Your task to perform on an android device: change the clock display to show seconds Image 0: 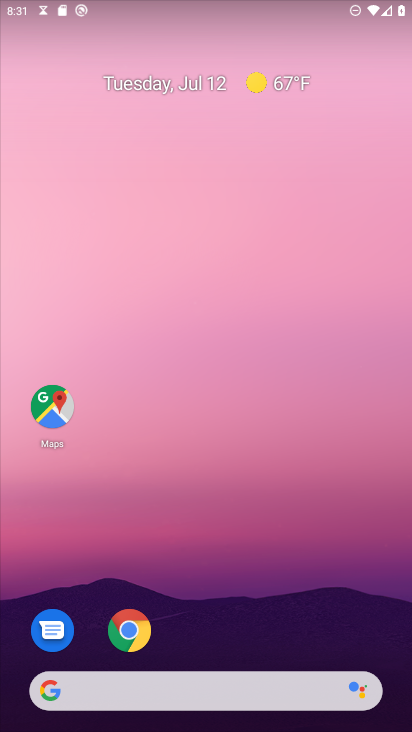
Step 0: drag from (208, 637) to (185, 140)
Your task to perform on an android device: change the clock display to show seconds Image 1: 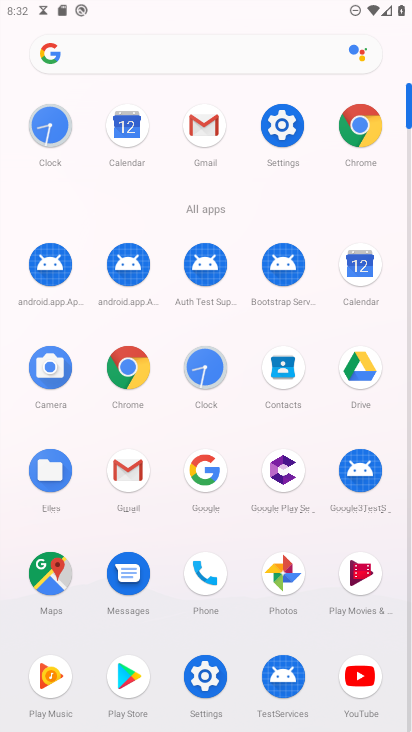
Step 1: click (202, 356)
Your task to perform on an android device: change the clock display to show seconds Image 2: 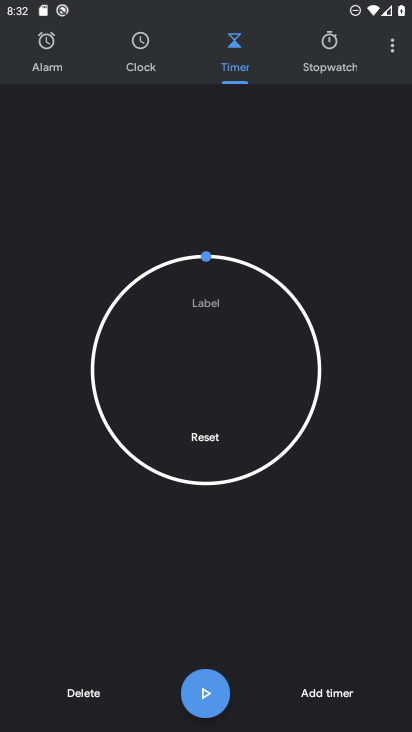
Step 2: click (399, 49)
Your task to perform on an android device: change the clock display to show seconds Image 3: 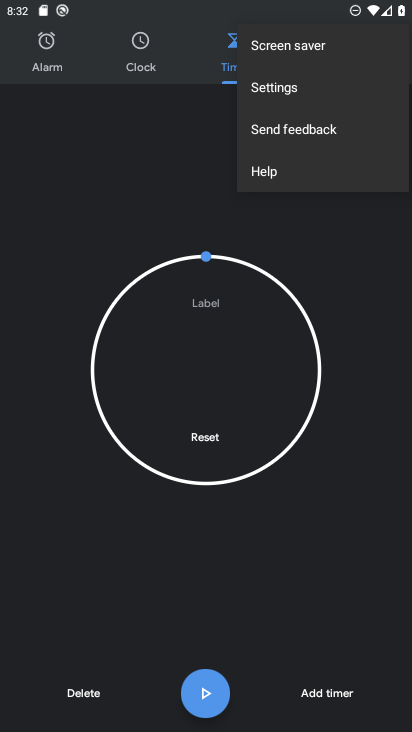
Step 3: click (329, 78)
Your task to perform on an android device: change the clock display to show seconds Image 4: 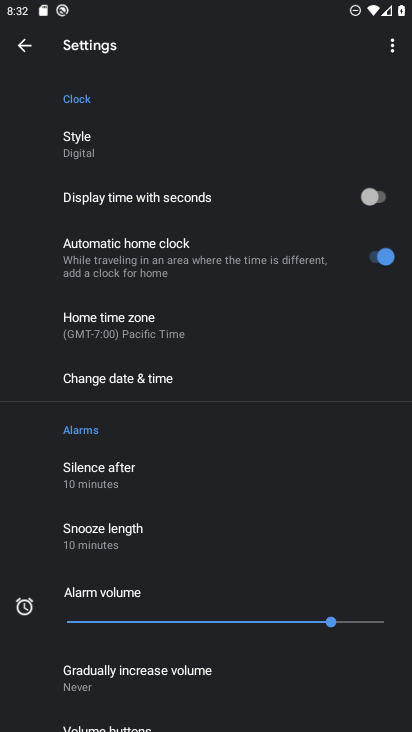
Step 4: click (382, 212)
Your task to perform on an android device: change the clock display to show seconds Image 5: 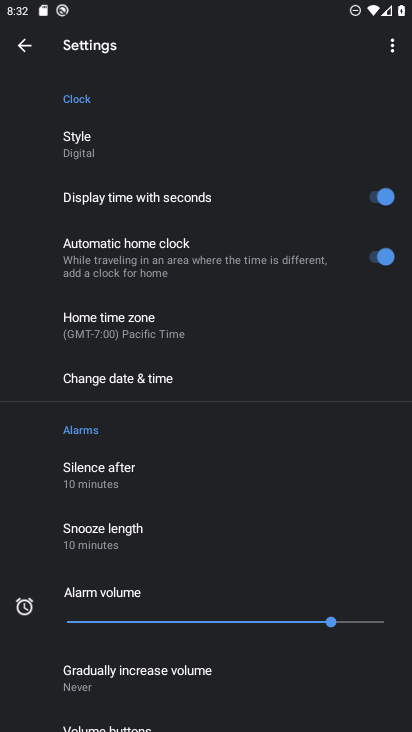
Step 5: task complete